Your task to perform on an android device: Open Reddit.com Image 0: 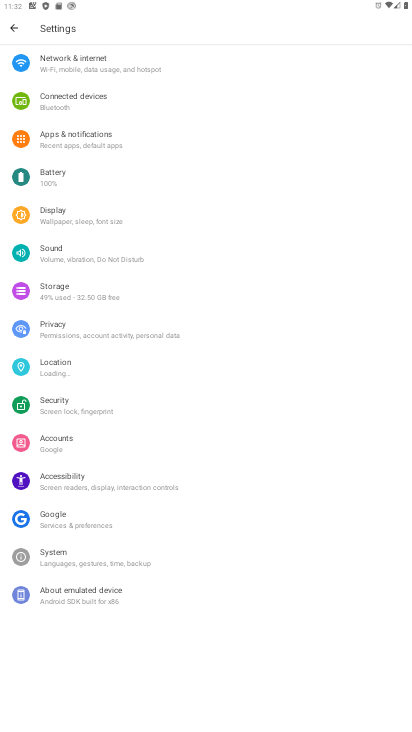
Step 0: press home button
Your task to perform on an android device: Open Reddit.com Image 1: 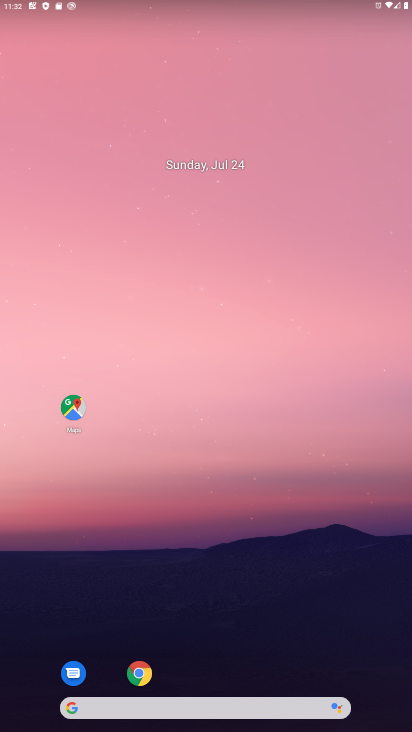
Step 1: drag from (239, 664) to (193, 47)
Your task to perform on an android device: Open Reddit.com Image 2: 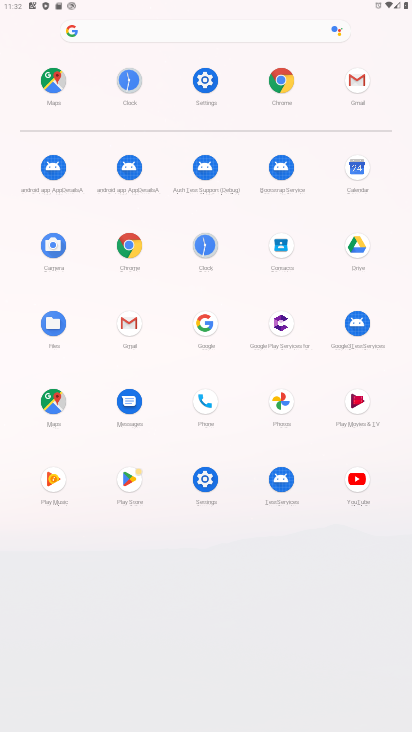
Step 2: click (277, 80)
Your task to perform on an android device: Open Reddit.com Image 3: 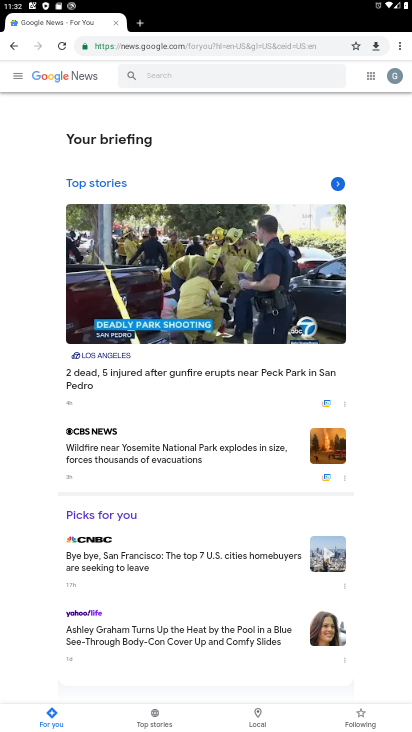
Step 3: click (249, 52)
Your task to perform on an android device: Open Reddit.com Image 4: 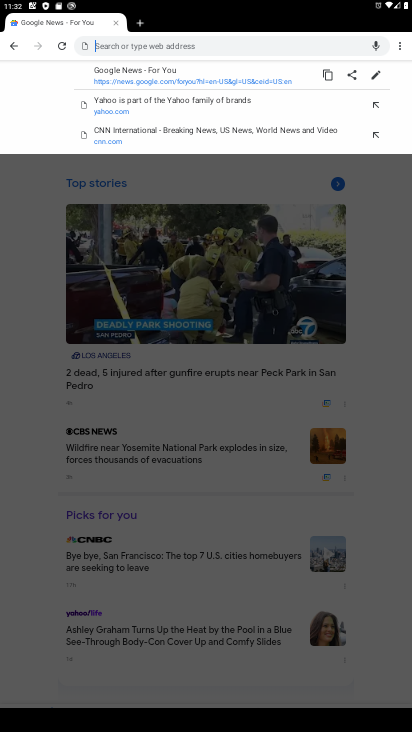
Step 4: type "reddit.com"
Your task to perform on an android device: Open Reddit.com Image 5: 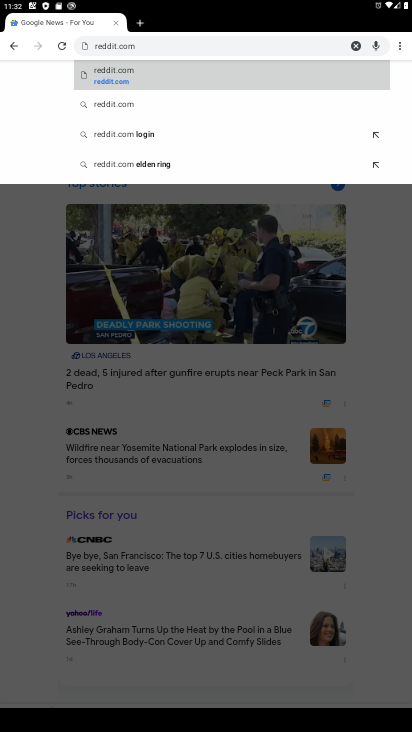
Step 5: click (128, 67)
Your task to perform on an android device: Open Reddit.com Image 6: 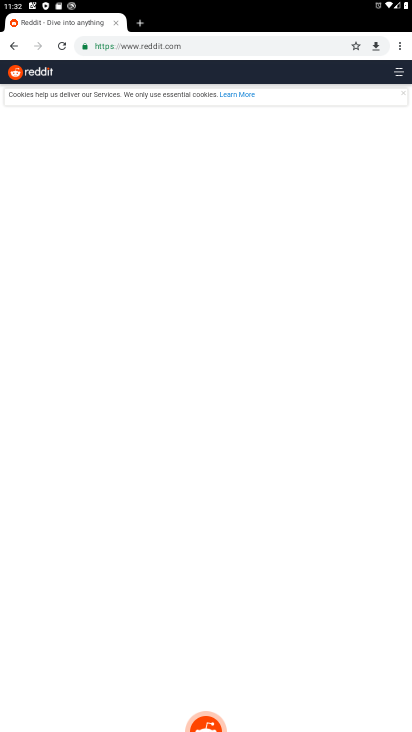
Step 6: task complete